Your task to perform on an android device: Open Maps and search for coffee Image 0: 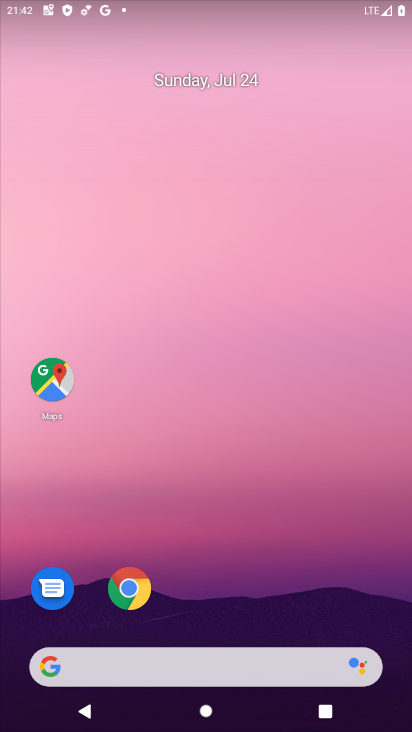
Step 0: click (56, 375)
Your task to perform on an android device: Open Maps and search for coffee Image 1: 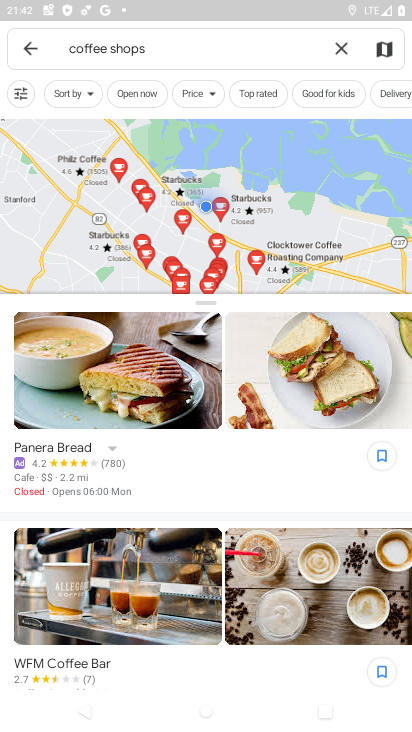
Step 1: task complete